Your task to perform on an android device: Open Wikipedia Image 0: 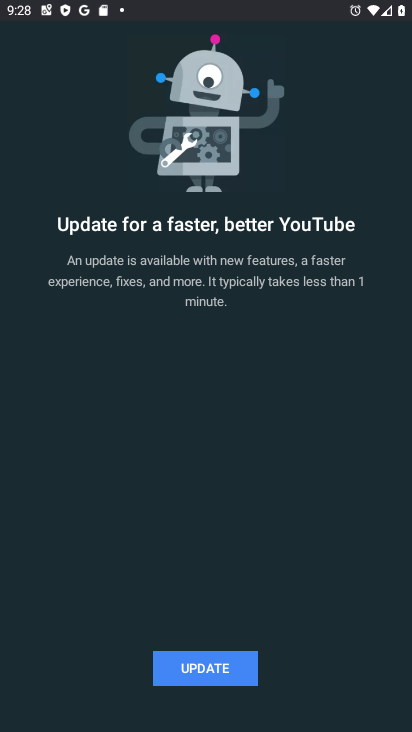
Step 0: press home button
Your task to perform on an android device: Open Wikipedia Image 1: 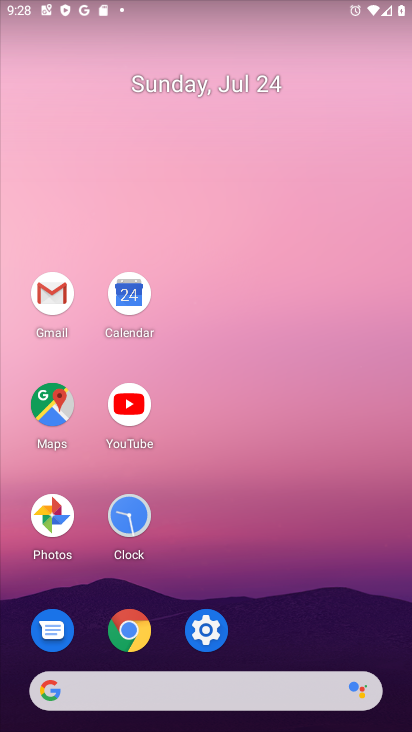
Step 1: click (127, 632)
Your task to perform on an android device: Open Wikipedia Image 2: 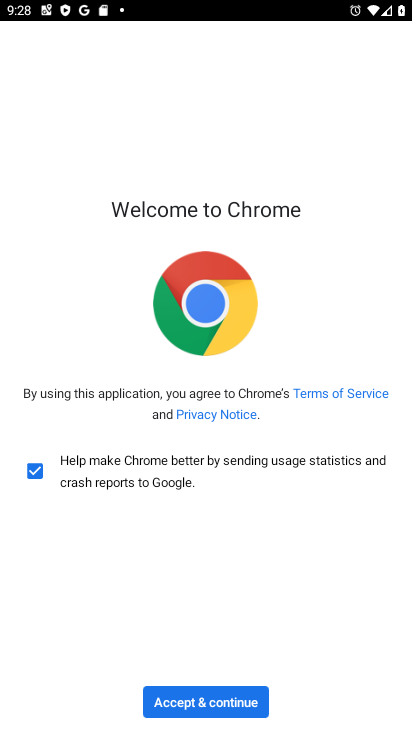
Step 2: click (202, 709)
Your task to perform on an android device: Open Wikipedia Image 3: 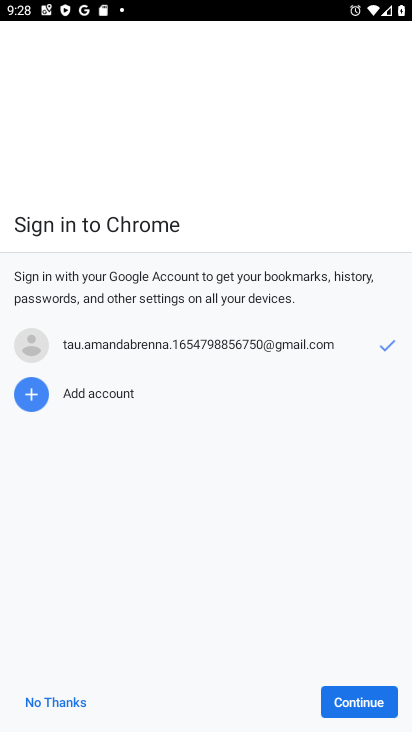
Step 3: click (338, 705)
Your task to perform on an android device: Open Wikipedia Image 4: 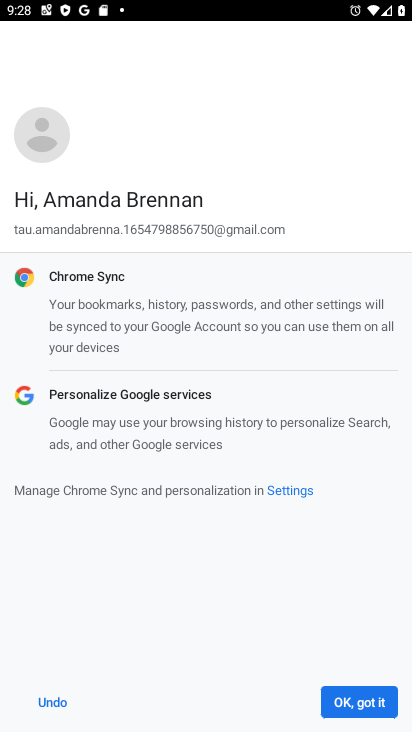
Step 4: click (338, 705)
Your task to perform on an android device: Open Wikipedia Image 5: 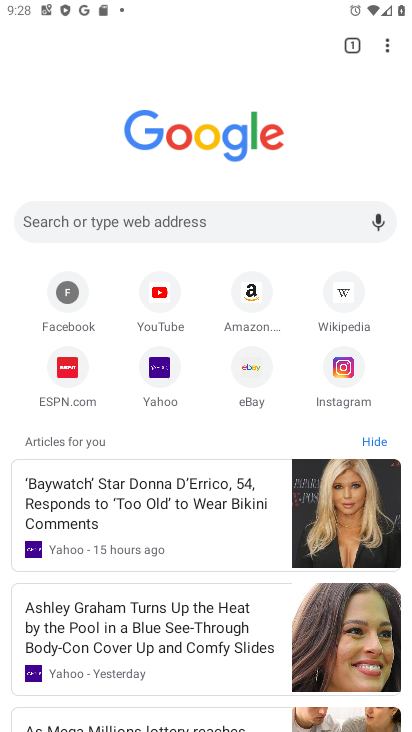
Step 5: click (346, 294)
Your task to perform on an android device: Open Wikipedia Image 6: 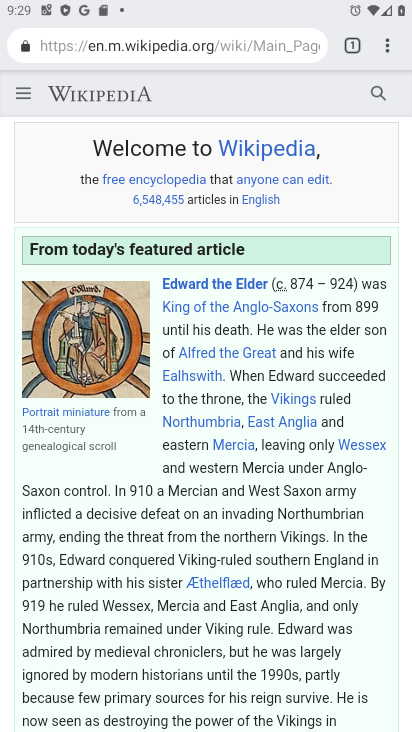
Step 6: task complete